Your task to perform on an android device: open app "WhatsApp Messenger" (install if not already installed) Image 0: 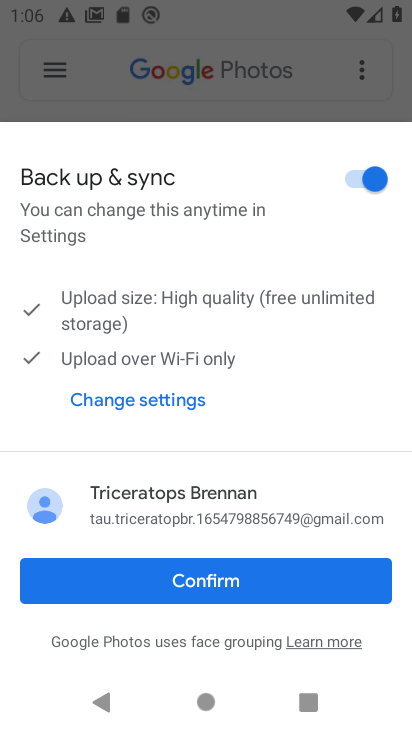
Step 0: press home button
Your task to perform on an android device: open app "WhatsApp Messenger" (install if not already installed) Image 1: 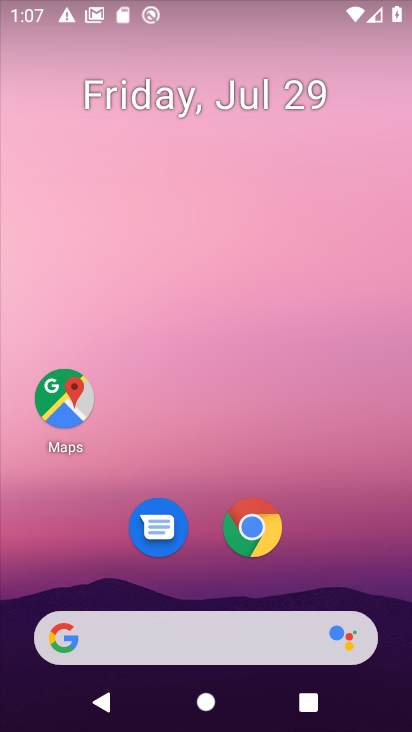
Step 1: drag from (235, 718) to (292, 75)
Your task to perform on an android device: open app "WhatsApp Messenger" (install if not already installed) Image 2: 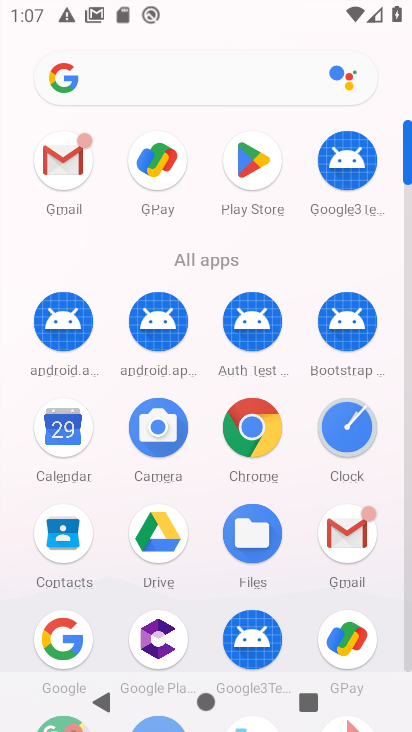
Step 2: click (244, 172)
Your task to perform on an android device: open app "WhatsApp Messenger" (install if not already installed) Image 3: 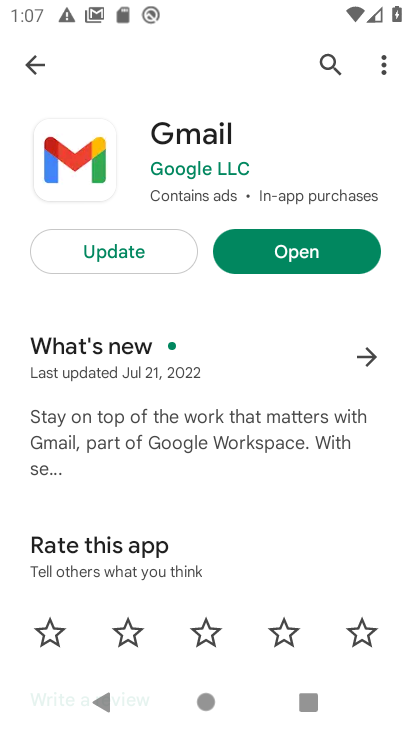
Step 3: click (328, 56)
Your task to perform on an android device: open app "WhatsApp Messenger" (install if not already installed) Image 4: 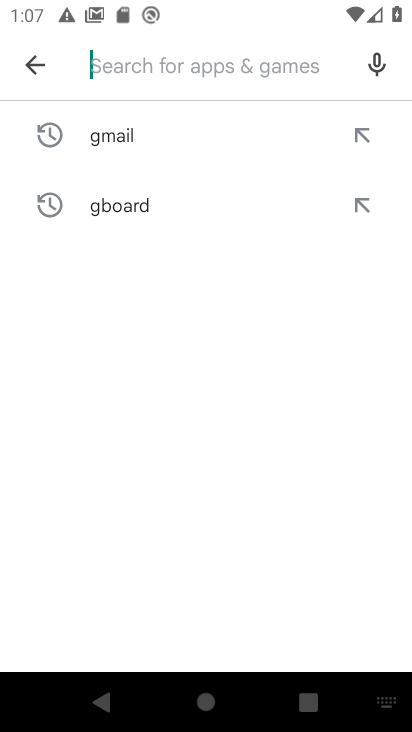
Step 4: type "WhatsApp Messenger"
Your task to perform on an android device: open app "WhatsApp Messenger" (install if not already installed) Image 5: 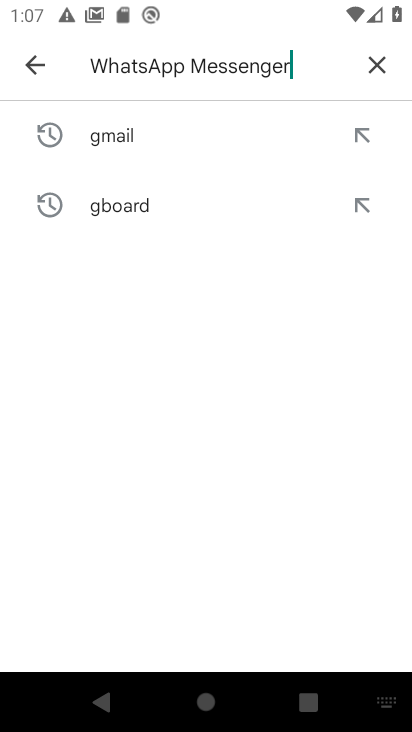
Step 5: type ""
Your task to perform on an android device: open app "WhatsApp Messenger" (install if not already installed) Image 6: 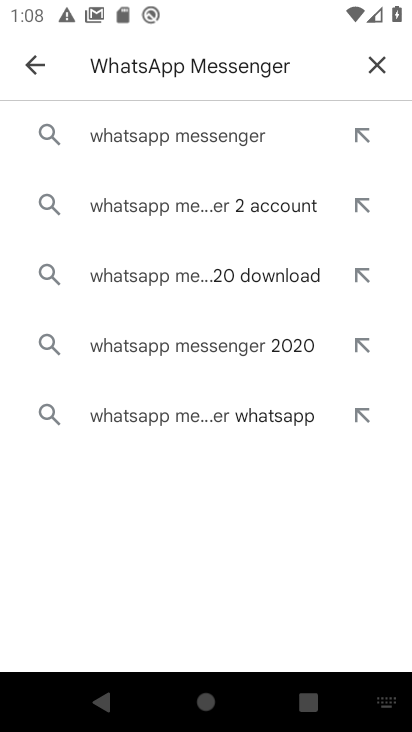
Step 6: click (169, 141)
Your task to perform on an android device: open app "WhatsApp Messenger" (install if not already installed) Image 7: 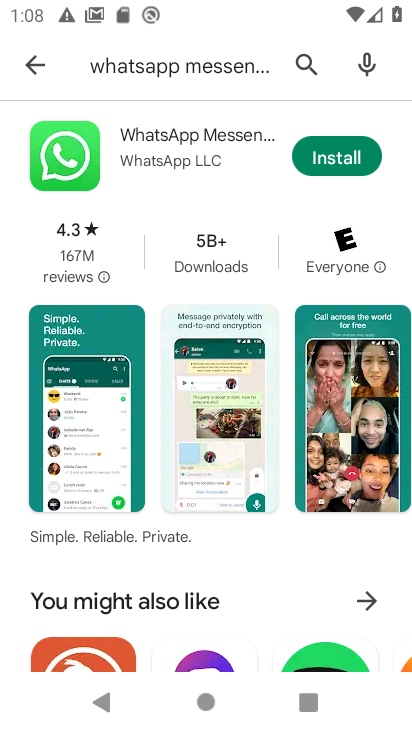
Step 7: click (332, 161)
Your task to perform on an android device: open app "WhatsApp Messenger" (install if not already installed) Image 8: 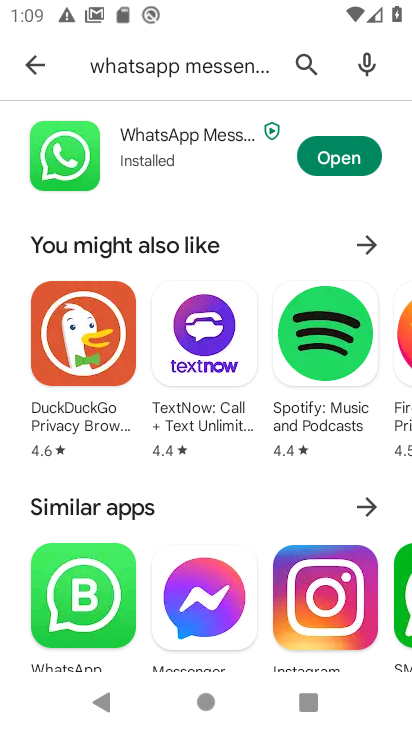
Step 8: task complete